Your task to perform on an android device: turn on data saver in the chrome app Image 0: 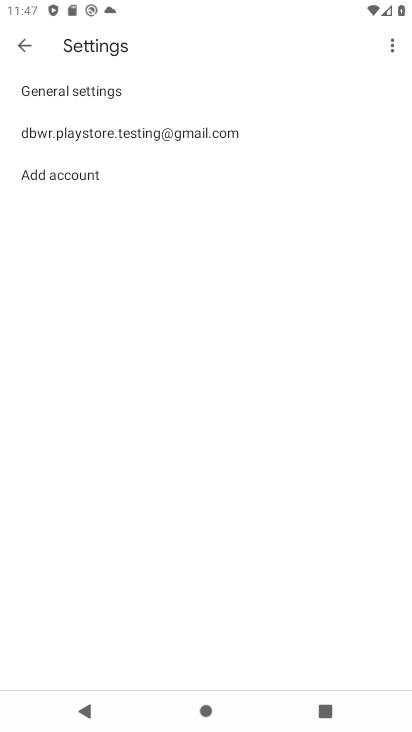
Step 0: press home button
Your task to perform on an android device: turn on data saver in the chrome app Image 1: 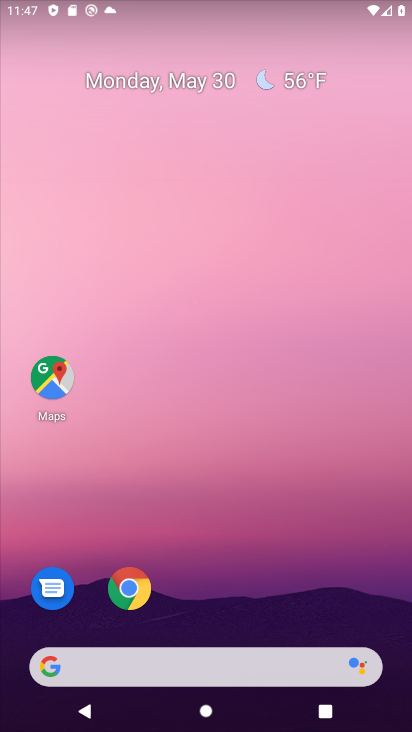
Step 1: click (128, 591)
Your task to perform on an android device: turn on data saver in the chrome app Image 2: 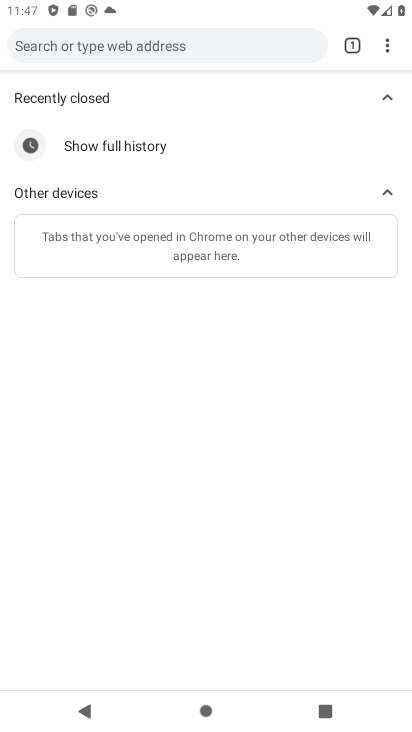
Step 2: click (383, 46)
Your task to perform on an android device: turn on data saver in the chrome app Image 3: 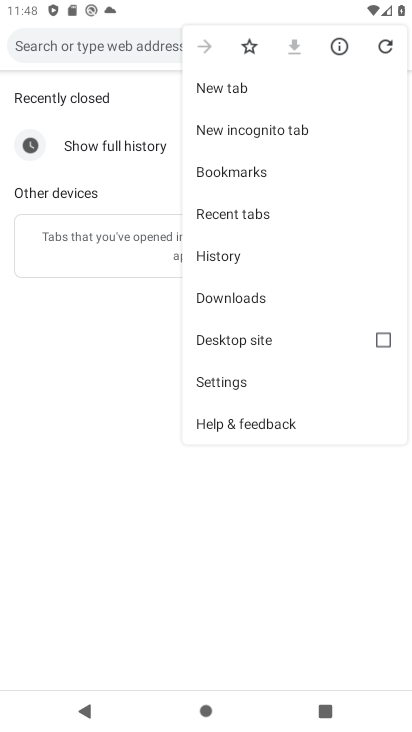
Step 3: click (242, 382)
Your task to perform on an android device: turn on data saver in the chrome app Image 4: 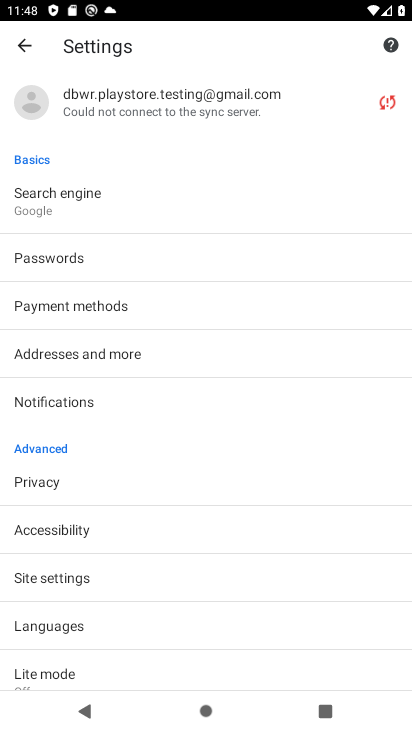
Step 4: click (59, 673)
Your task to perform on an android device: turn on data saver in the chrome app Image 5: 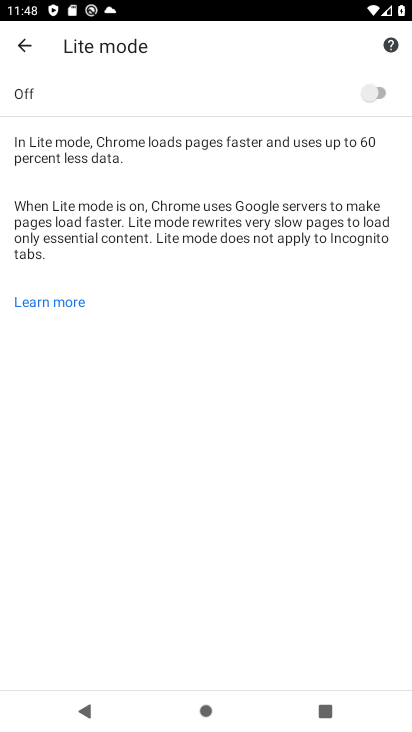
Step 5: click (384, 96)
Your task to perform on an android device: turn on data saver in the chrome app Image 6: 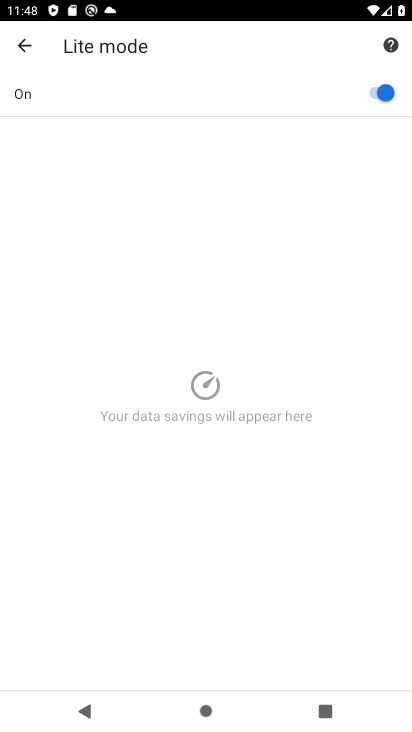
Step 6: task complete